Your task to perform on an android device: Do I have any events this weekend? Image 0: 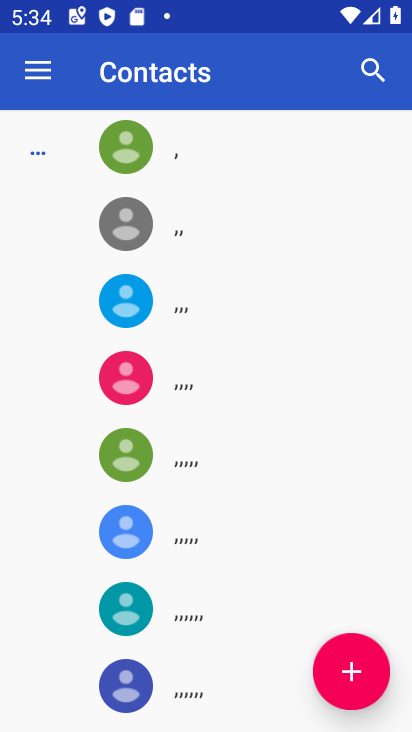
Step 0: press home button
Your task to perform on an android device: Do I have any events this weekend? Image 1: 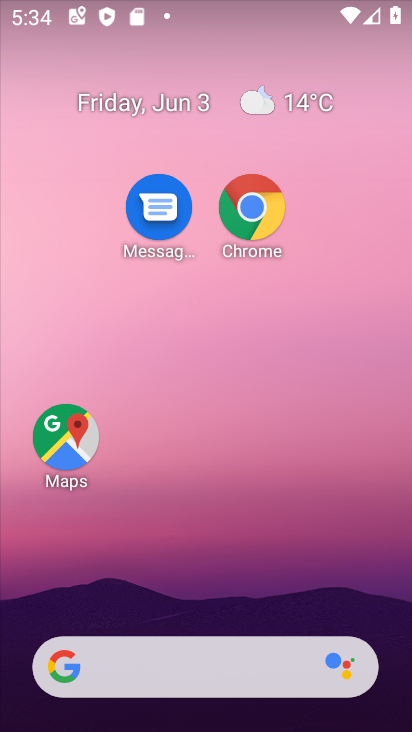
Step 1: drag from (220, 600) to (148, 86)
Your task to perform on an android device: Do I have any events this weekend? Image 2: 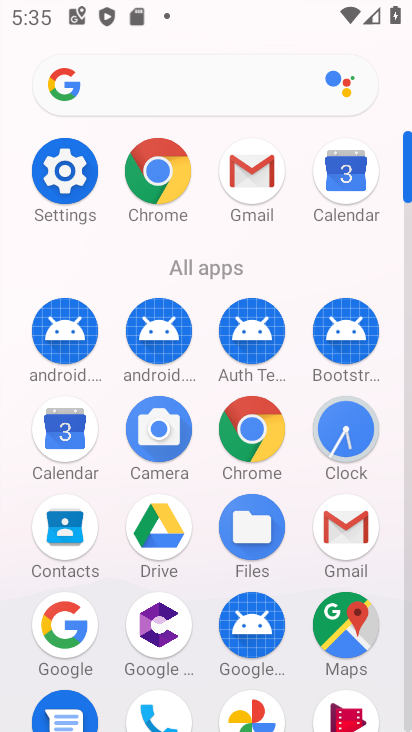
Step 2: drag from (186, 576) to (178, 287)
Your task to perform on an android device: Do I have any events this weekend? Image 3: 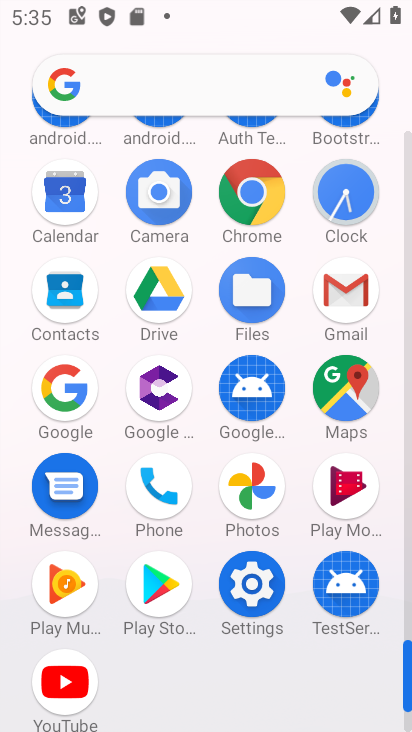
Step 3: drag from (230, 537) to (234, 344)
Your task to perform on an android device: Do I have any events this weekend? Image 4: 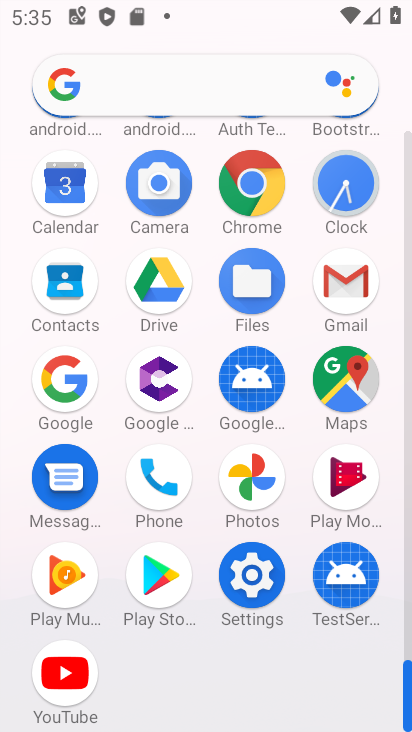
Step 4: drag from (225, 272) to (294, 676)
Your task to perform on an android device: Do I have any events this weekend? Image 5: 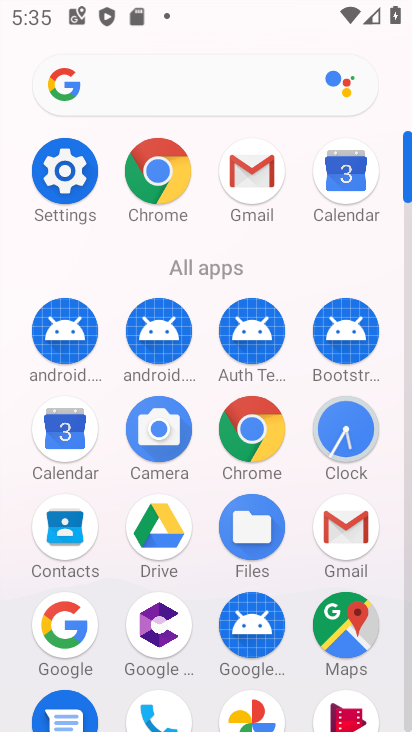
Step 5: click (350, 206)
Your task to perform on an android device: Do I have any events this weekend? Image 6: 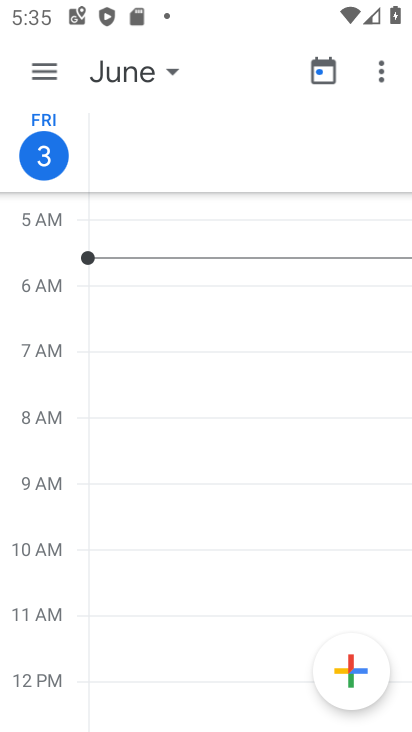
Step 6: click (129, 72)
Your task to perform on an android device: Do I have any events this weekend? Image 7: 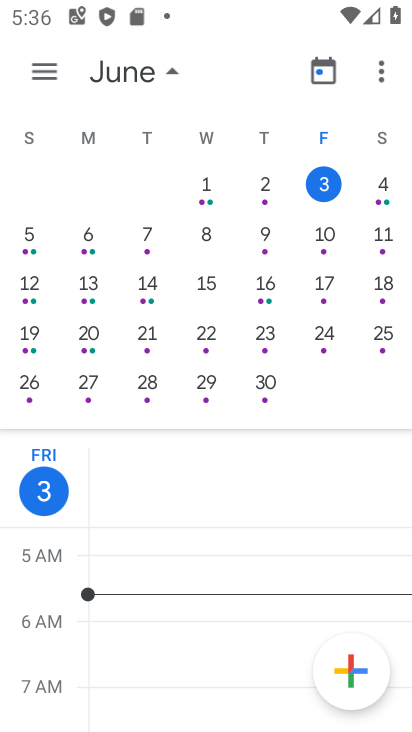
Step 7: drag from (48, 274) to (410, 336)
Your task to perform on an android device: Do I have any events this weekend? Image 8: 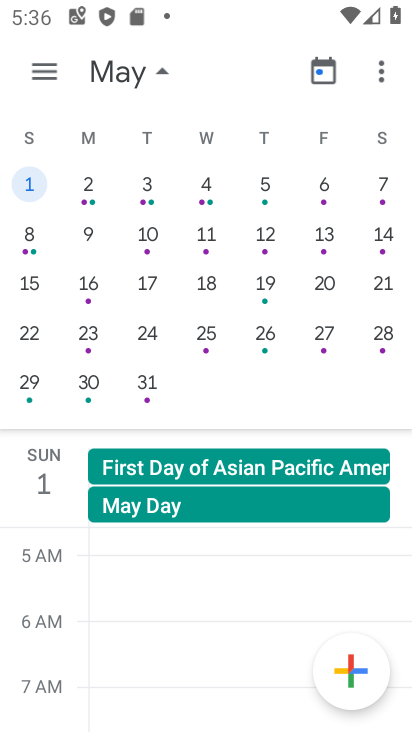
Step 8: click (34, 385)
Your task to perform on an android device: Do I have any events this weekend? Image 9: 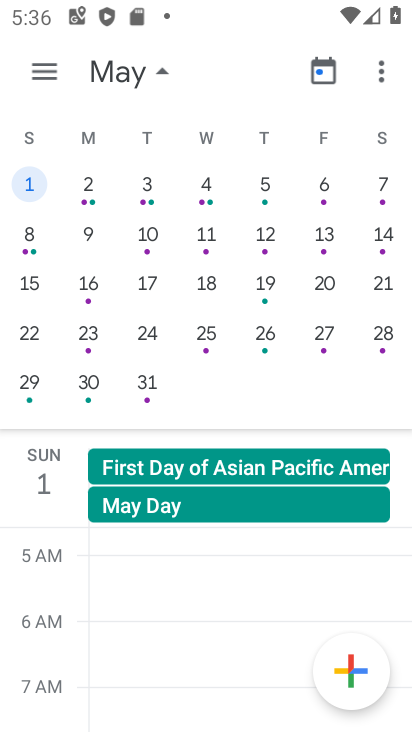
Step 9: click (39, 75)
Your task to perform on an android device: Do I have any events this weekend? Image 10: 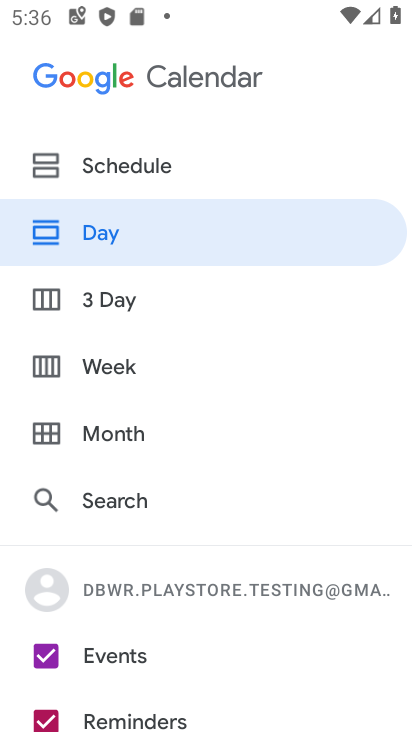
Step 10: click (96, 364)
Your task to perform on an android device: Do I have any events this weekend? Image 11: 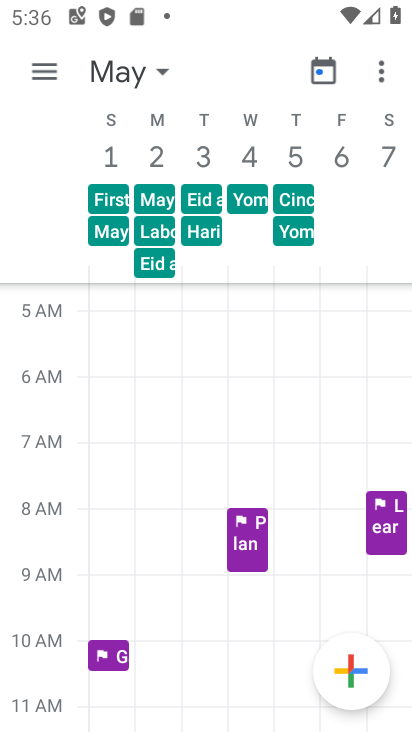
Step 11: click (124, 74)
Your task to perform on an android device: Do I have any events this weekend? Image 12: 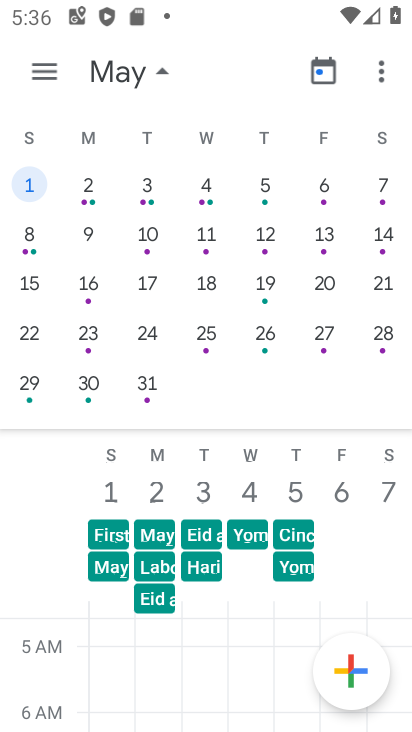
Step 12: click (24, 383)
Your task to perform on an android device: Do I have any events this weekend? Image 13: 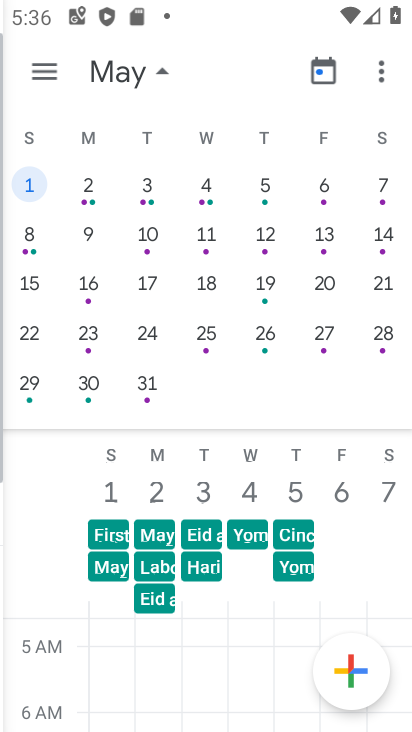
Step 13: click (25, 384)
Your task to perform on an android device: Do I have any events this weekend? Image 14: 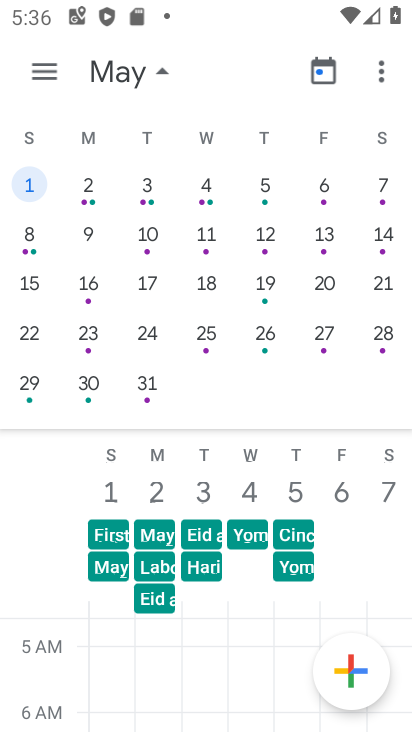
Step 14: click (34, 383)
Your task to perform on an android device: Do I have any events this weekend? Image 15: 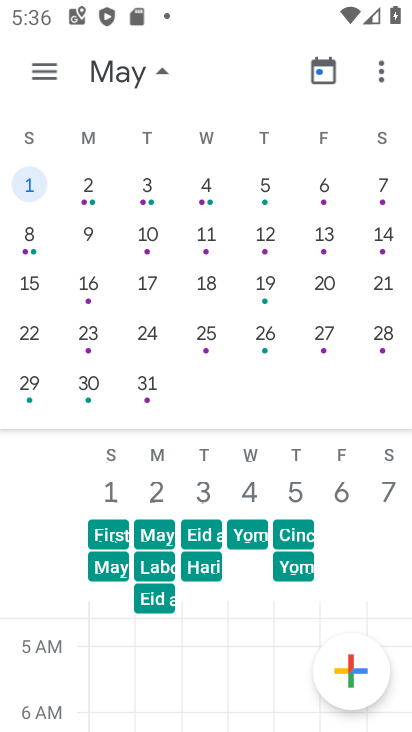
Step 15: click (33, 381)
Your task to perform on an android device: Do I have any events this weekend? Image 16: 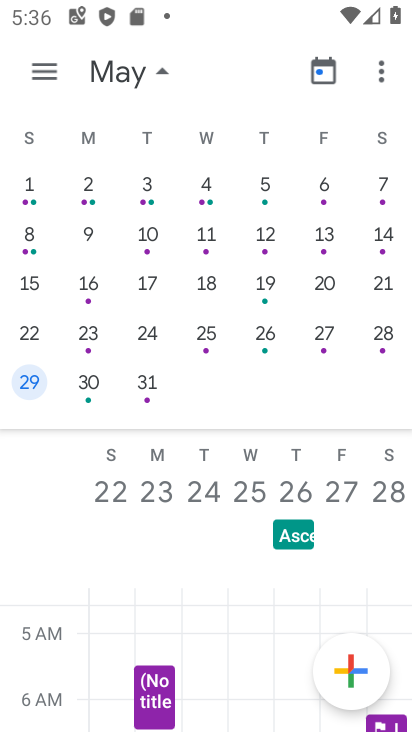
Step 16: click (33, 381)
Your task to perform on an android device: Do I have any events this weekend? Image 17: 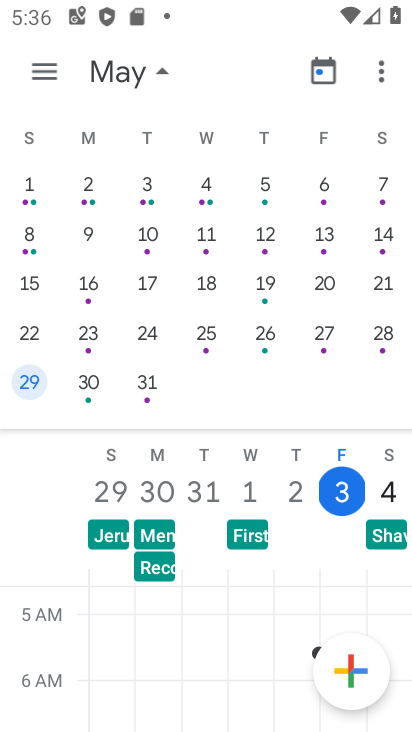
Step 17: task complete